Your task to perform on an android device: Open the calendar and show me this week's events? Image 0: 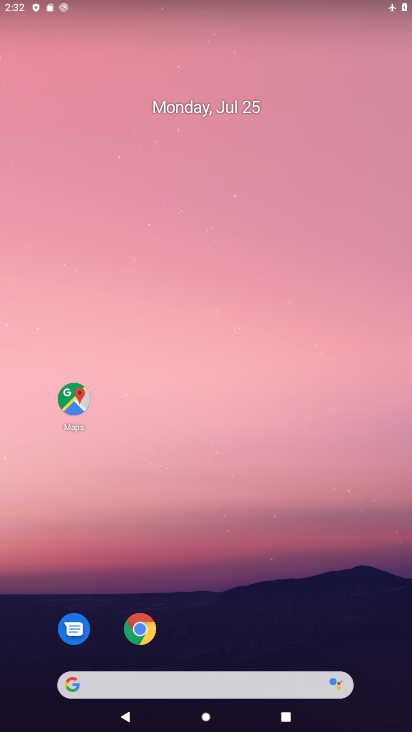
Step 0: drag from (269, 684) to (191, 165)
Your task to perform on an android device: Open the calendar and show me this week's events? Image 1: 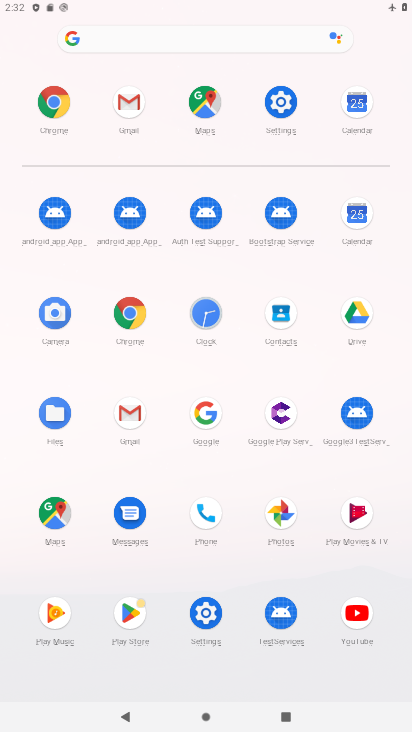
Step 1: click (356, 210)
Your task to perform on an android device: Open the calendar and show me this week's events? Image 2: 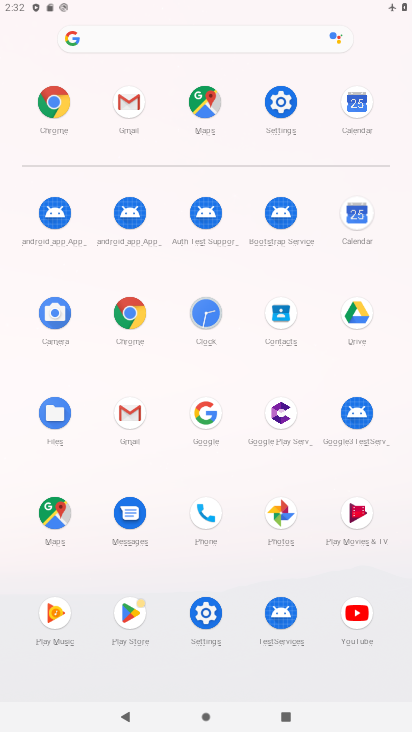
Step 2: click (357, 211)
Your task to perform on an android device: Open the calendar and show me this week's events? Image 3: 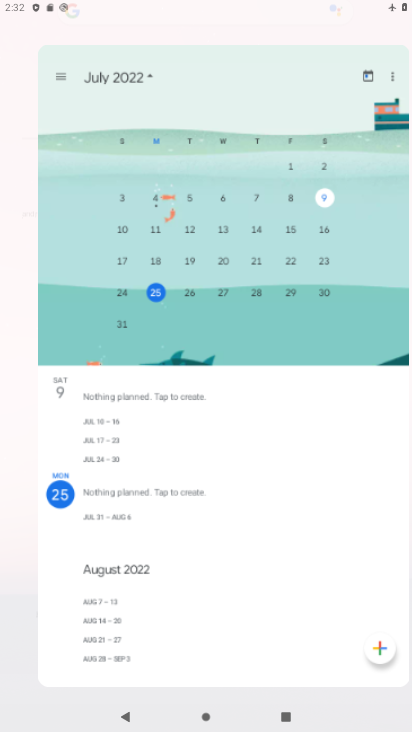
Step 3: click (360, 213)
Your task to perform on an android device: Open the calendar and show me this week's events? Image 4: 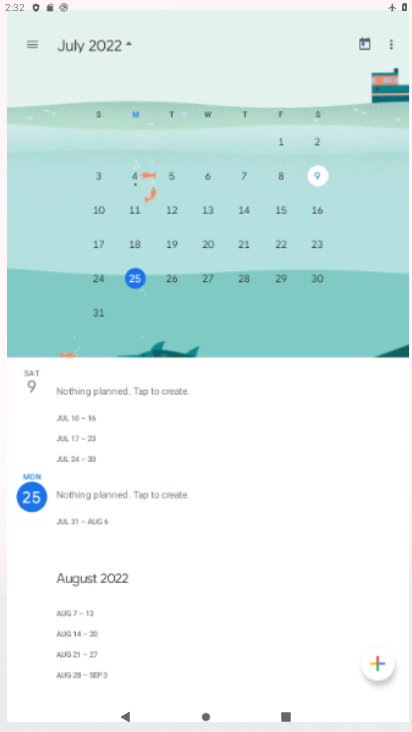
Step 4: click (360, 213)
Your task to perform on an android device: Open the calendar and show me this week's events? Image 5: 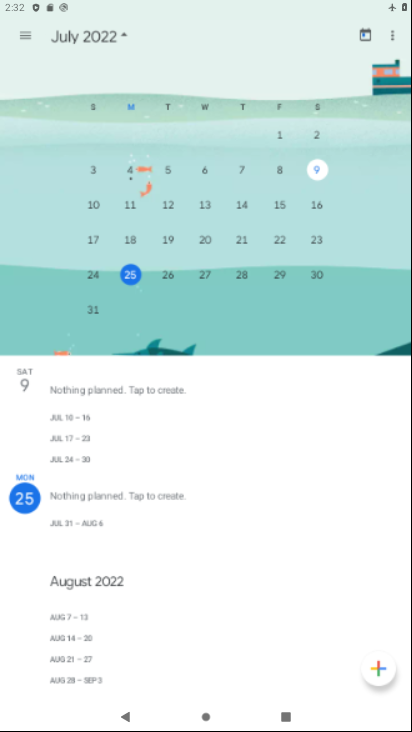
Step 5: click (359, 224)
Your task to perform on an android device: Open the calendar and show me this week's events? Image 6: 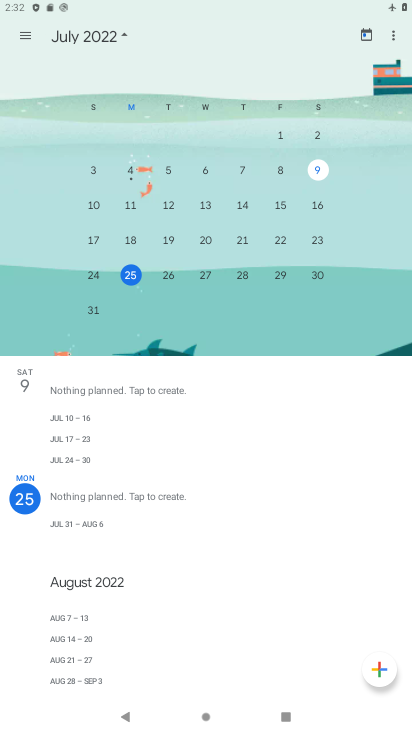
Step 6: task complete